Your task to perform on an android device: Add usb-c to usb-b to the cart on amazon.com, then select checkout. Image 0: 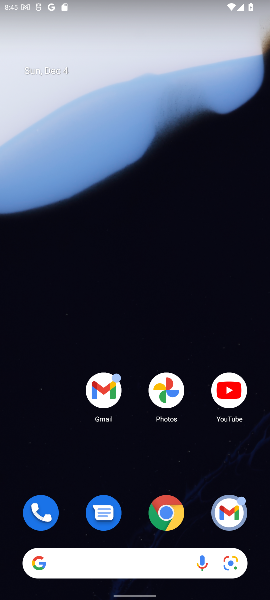
Step 0: click (165, 509)
Your task to perform on an android device: Add usb-c to usb-b to the cart on amazon.com, then select checkout. Image 1: 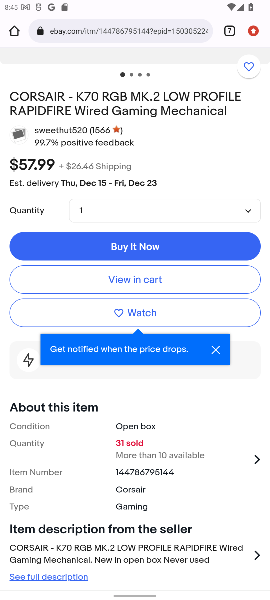
Step 1: click (231, 28)
Your task to perform on an android device: Add usb-c to usb-b to the cart on amazon.com, then select checkout. Image 2: 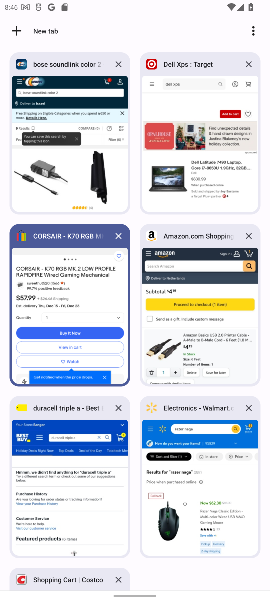
Step 2: click (185, 303)
Your task to perform on an android device: Add usb-c to usb-b to the cart on amazon.com, then select checkout. Image 3: 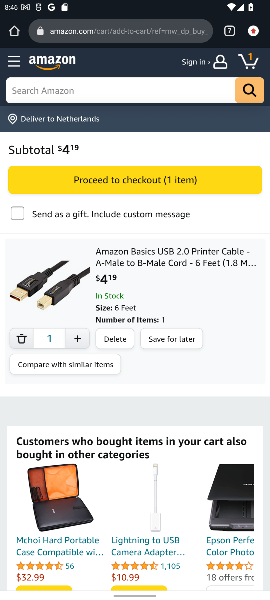
Step 3: click (127, 87)
Your task to perform on an android device: Add usb-c to usb-b to the cart on amazon.com, then select checkout. Image 4: 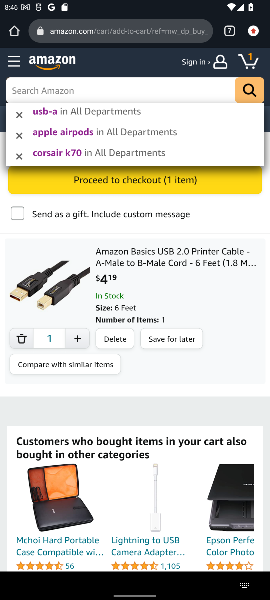
Step 4: type "usb-c to usb-b "
Your task to perform on an android device: Add usb-c to usb-b to the cart on amazon.com, then select checkout. Image 5: 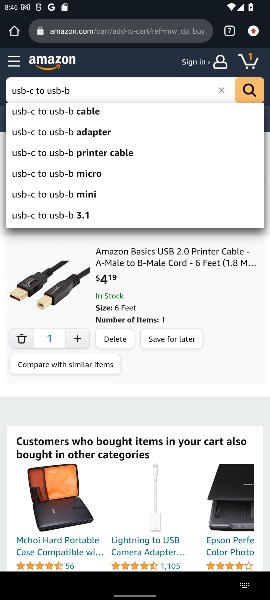
Step 5: type "s"
Your task to perform on an android device: Add usb-c to usb-b to the cart on amazon.com, then select checkout. Image 6: 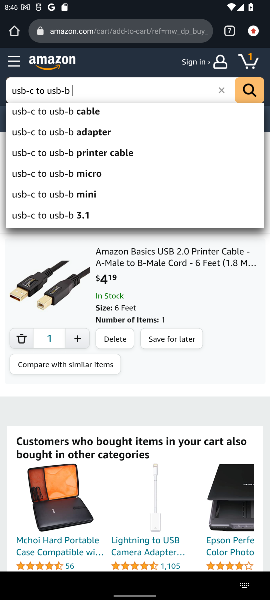
Step 6: click (63, 112)
Your task to perform on an android device: Add usb-c to usb-b to the cart on amazon.com, then select checkout. Image 7: 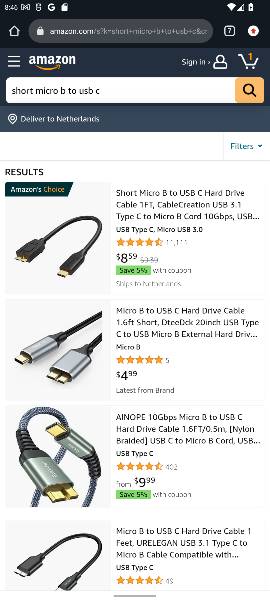
Step 7: click (179, 207)
Your task to perform on an android device: Add usb-c to usb-b to the cart on amazon.com, then select checkout. Image 8: 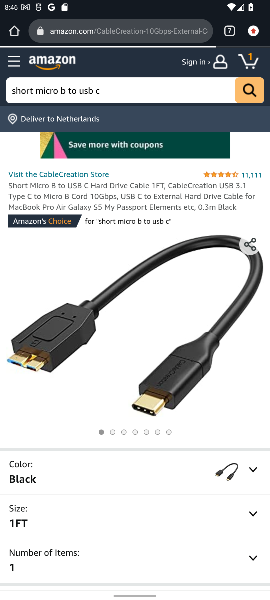
Step 8: drag from (198, 516) to (179, 64)
Your task to perform on an android device: Add usb-c to usb-b to the cart on amazon.com, then select checkout. Image 9: 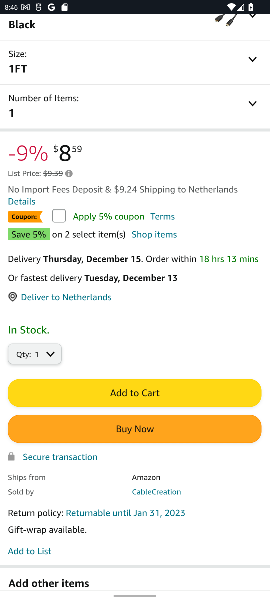
Step 9: click (157, 392)
Your task to perform on an android device: Add usb-c to usb-b to the cart on amazon.com, then select checkout. Image 10: 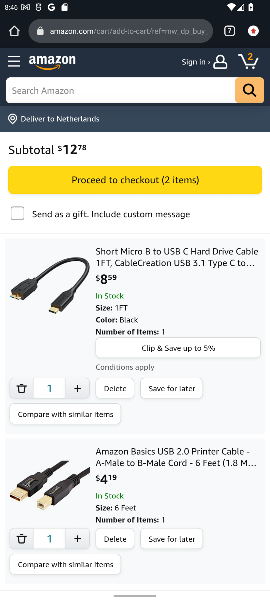
Step 10: click (140, 179)
Your task to perform on an android device: Add usb-c to usb-b to the cart on amazon.com, then select checkout. Image 11: 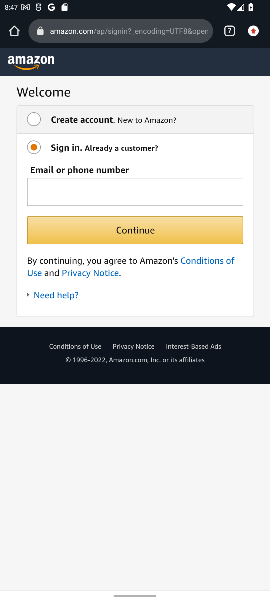
Step 11: task complete